Your task to perform on an android device: Clear all items from cart on newegg.com. Add logitech g pro to the cart on newegg.com, then select checkout. Image 0: 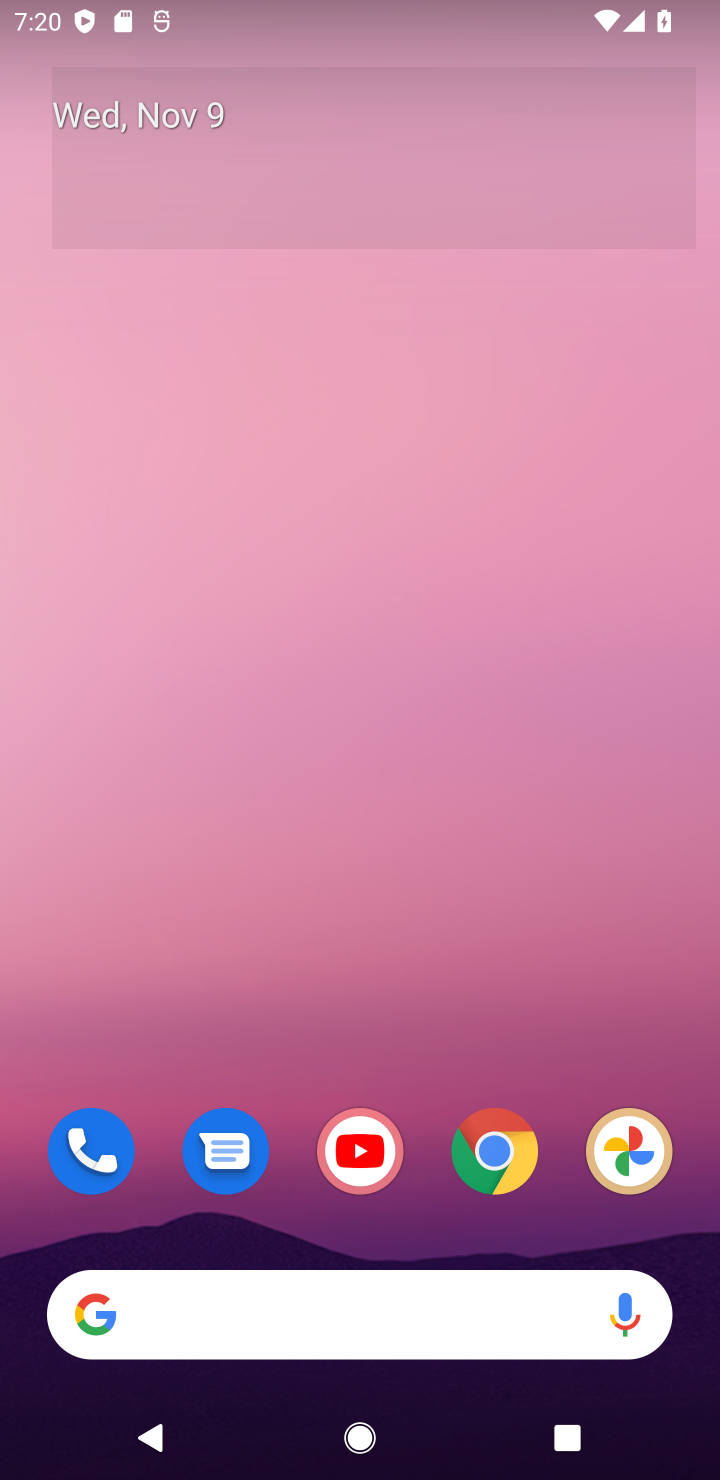
Step 0: drag from (411, 1125) to (605, 114)
Your task to perform on an android device: Clear all items from cart on newegg.com. Add logitech g pro to the cart on newegg.com, then select checkout. Image 1: 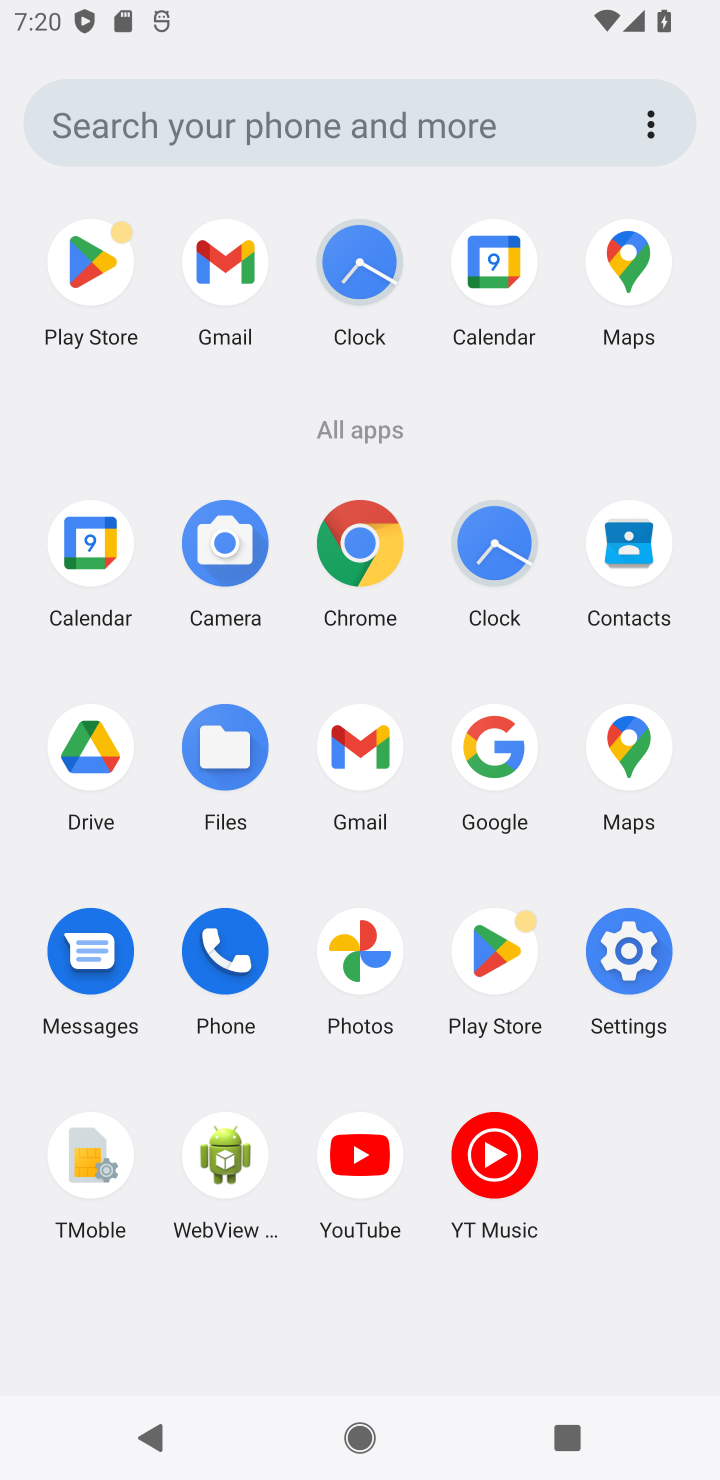
Step 1: click (365, 573)
Your task to perform on an android device: Clear all items from cart on newegg.com. Add logitech g pro to the cart on newegg.com, then select checkout. Image 2: 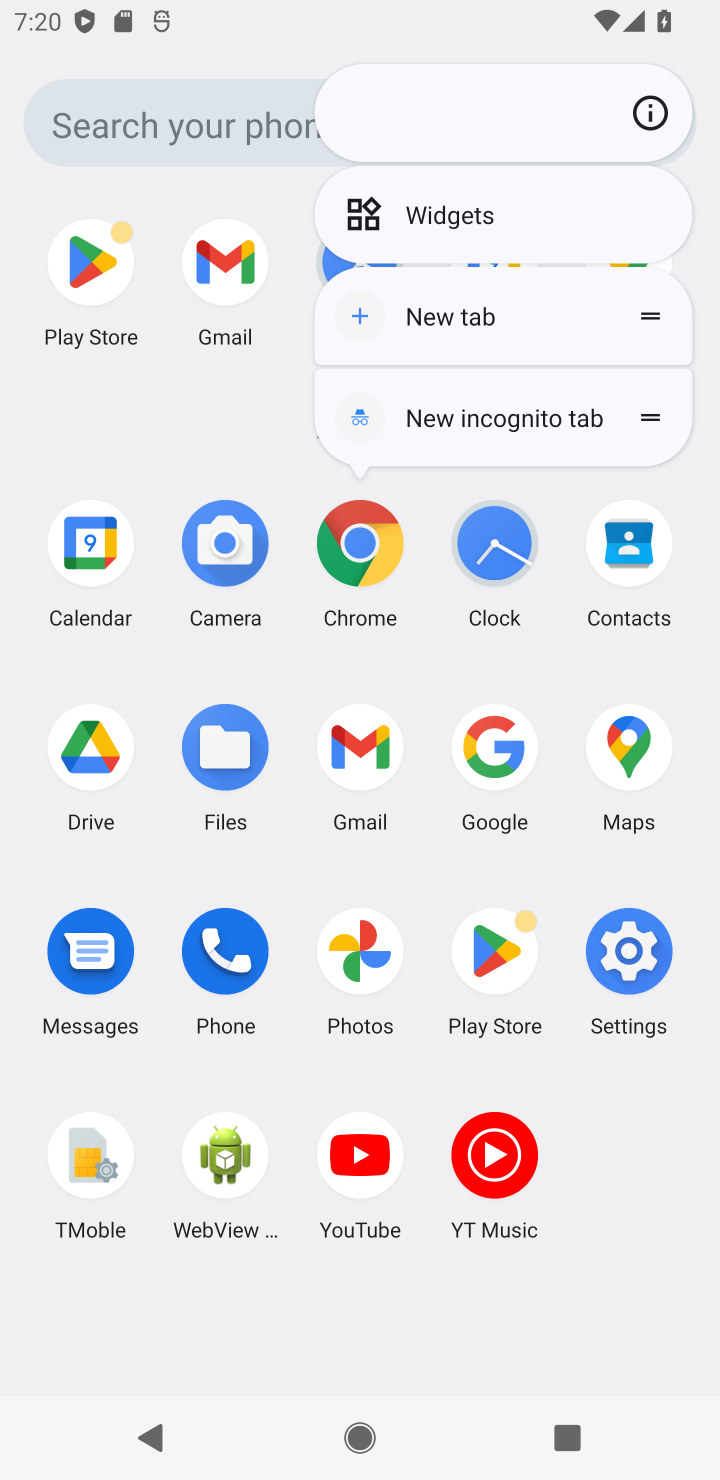
Step 2: click (366, 558)
Your task to perform on an android device: Clear all items from cart on newegg.com. Add logitech g pro to the cart on newegg.com, then select checkout. Image 3: 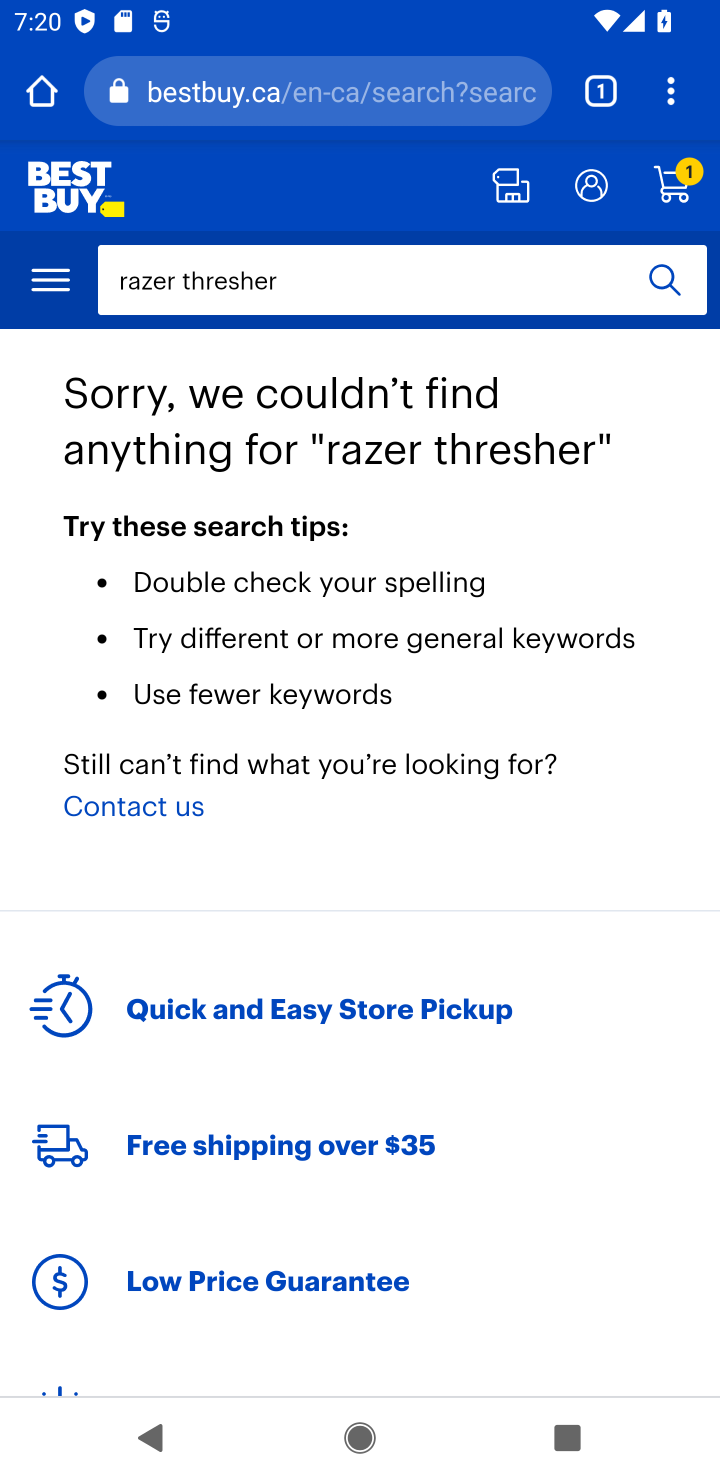
Step 3: click (328, 97)
Your task to perform on an android device: Clear all items from cart on newegg.com. Add logitech g pro to the cart on newegg.com, then select checkout. Image 4: 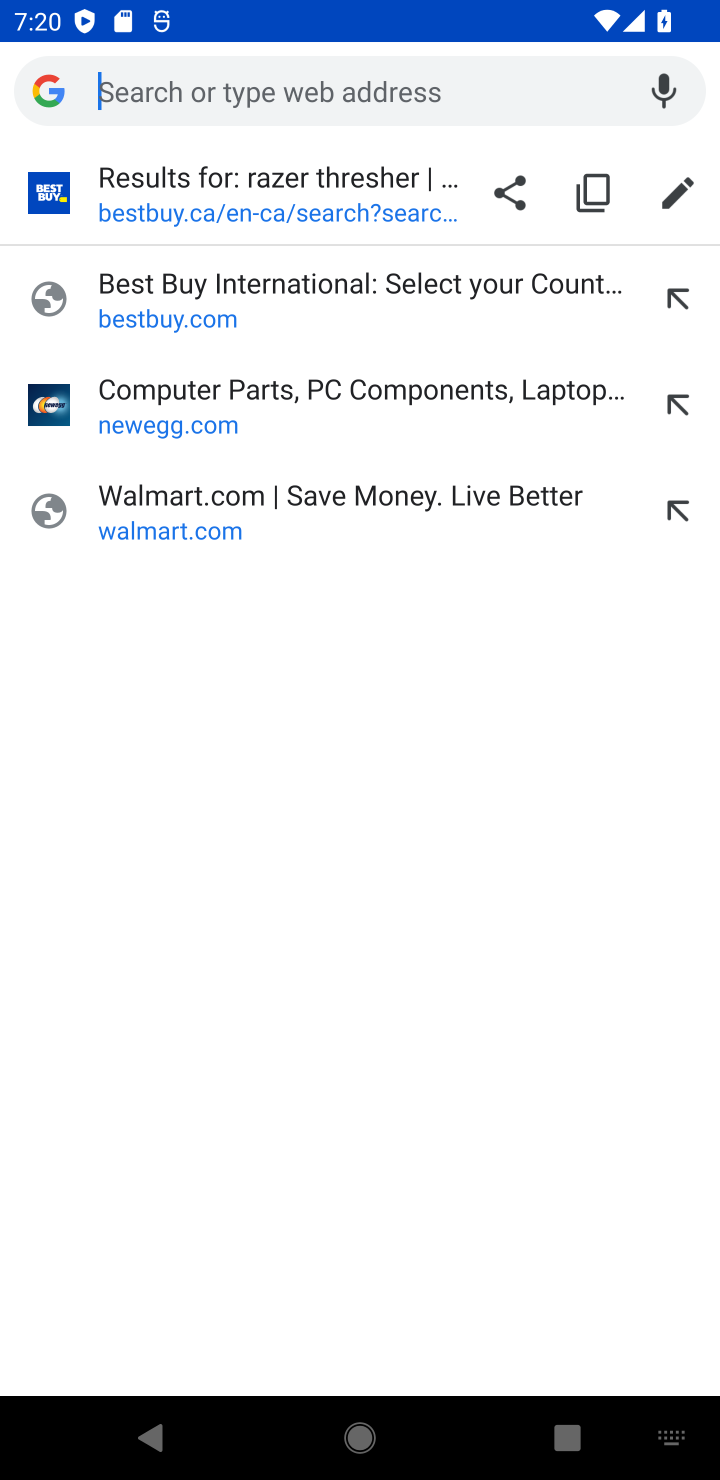
Step 4: type "newegg.com"
Your task to perform on an android device: Clear all items from cart on newegg.com. Add logitech g pro to the cart on newegg.com, then select checkout. Image 5: 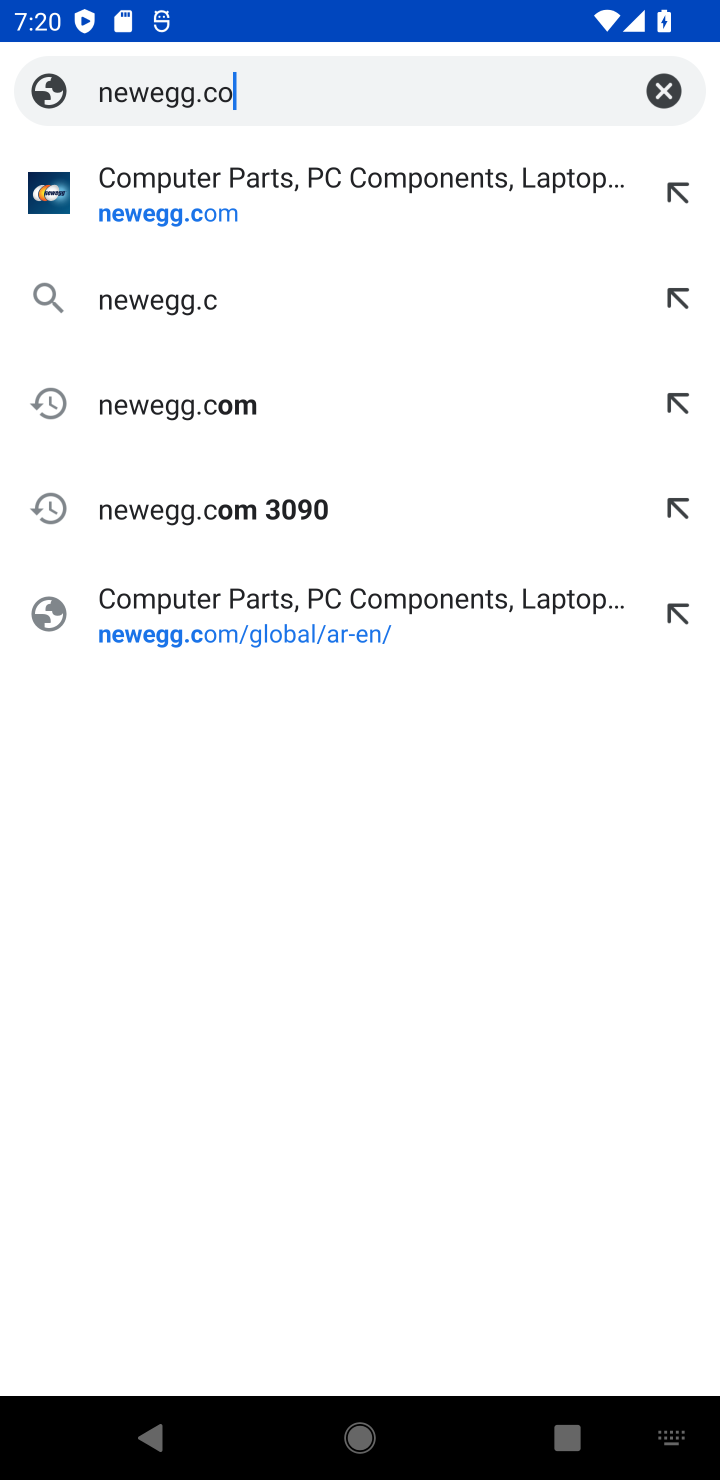
Step 5: press enter
Your task to perform on an android device: Clear all items from cart on newegg.com. Add logitech g pro to the cart on newegg.com, then select checkout. Image 6: 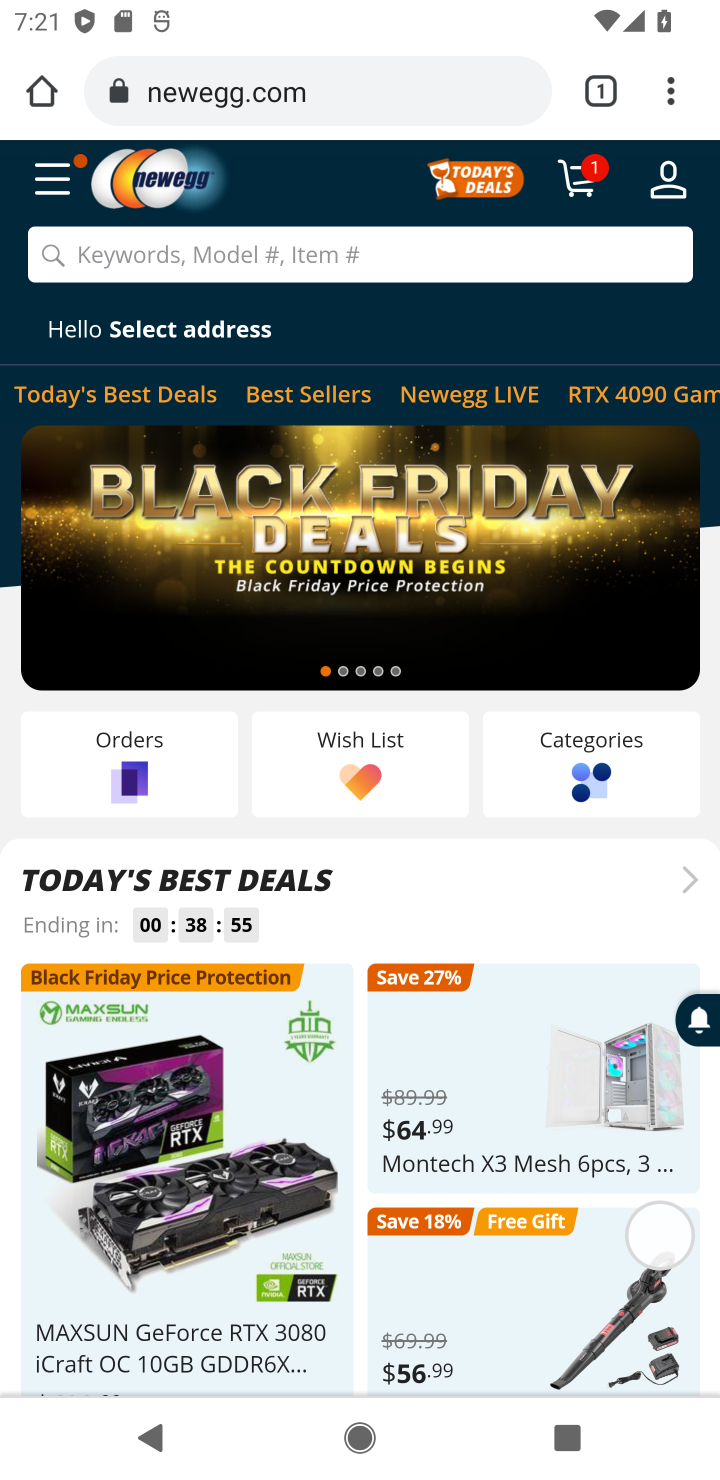
Step 6: click (571, 193)
Your task to perform on an android device: Clear all items from cart on newegg.com. Add logitech g pro to the cart on newegg.com, then select checkout. Image 7: 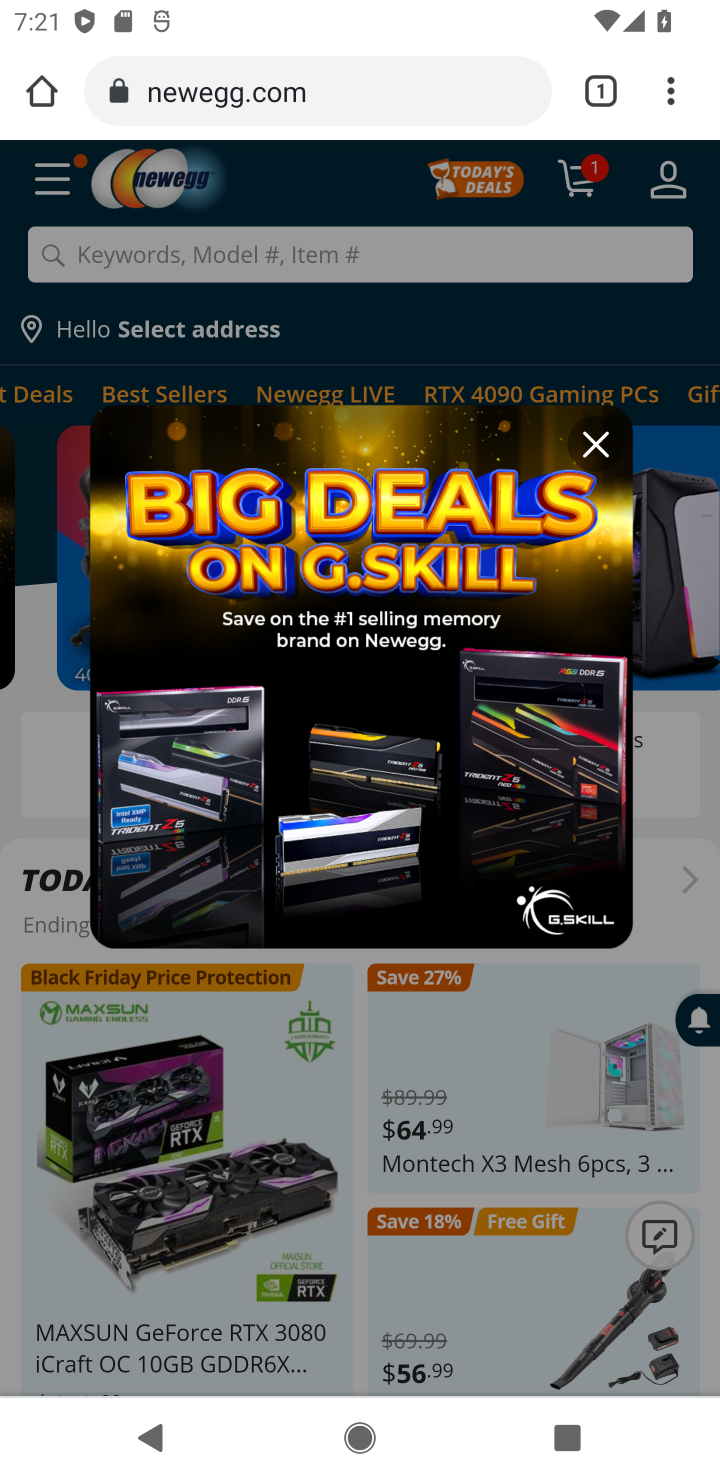
Step 7: click (583, 190)
Your task to perform on an android device: Clear all items from cart on newegg.com. Add logitech g pro to the cart on newegg.com, then select checkout. Image 8: 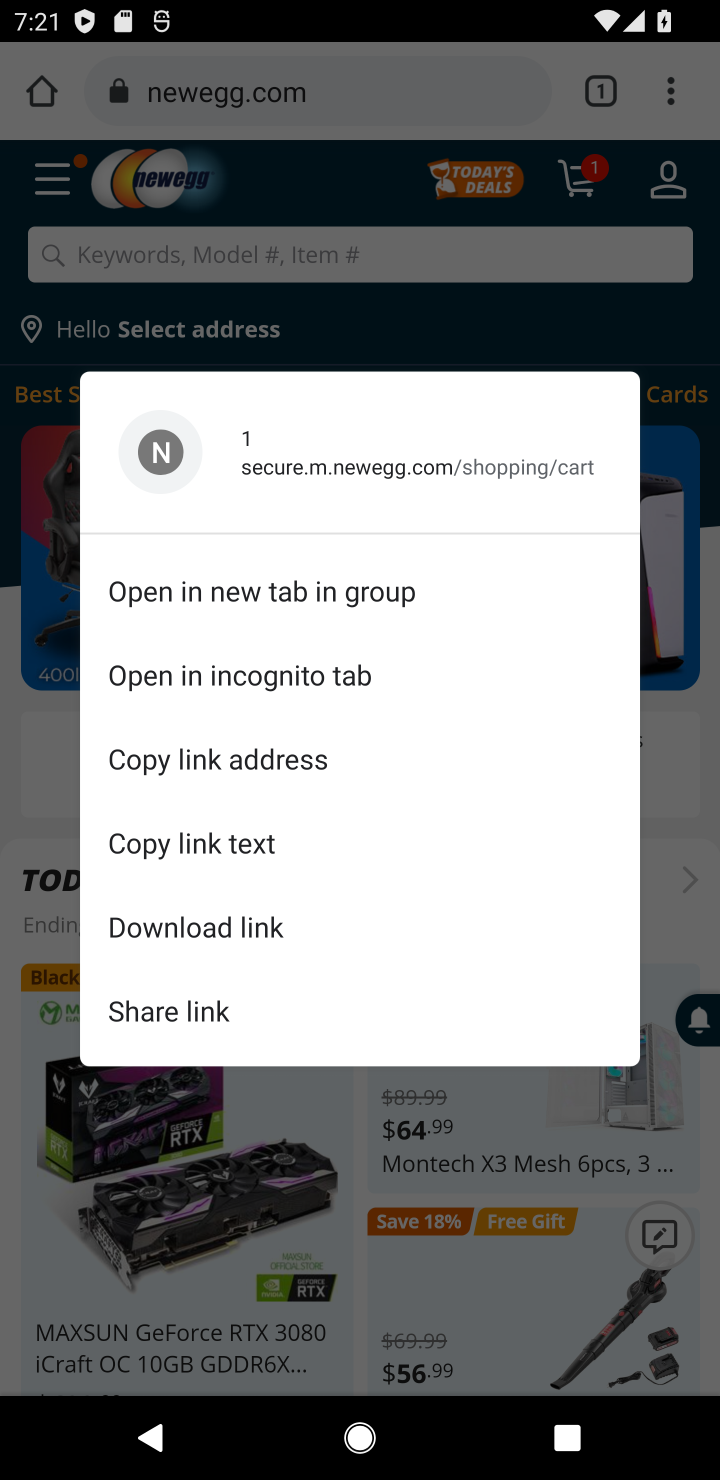
Step 8: click (585, 176)
Your task to perform on an android device: Clear all items from cart on newegg.com. Add logitech g pro to the cart on newegg.com, then select checkout. Image 9: 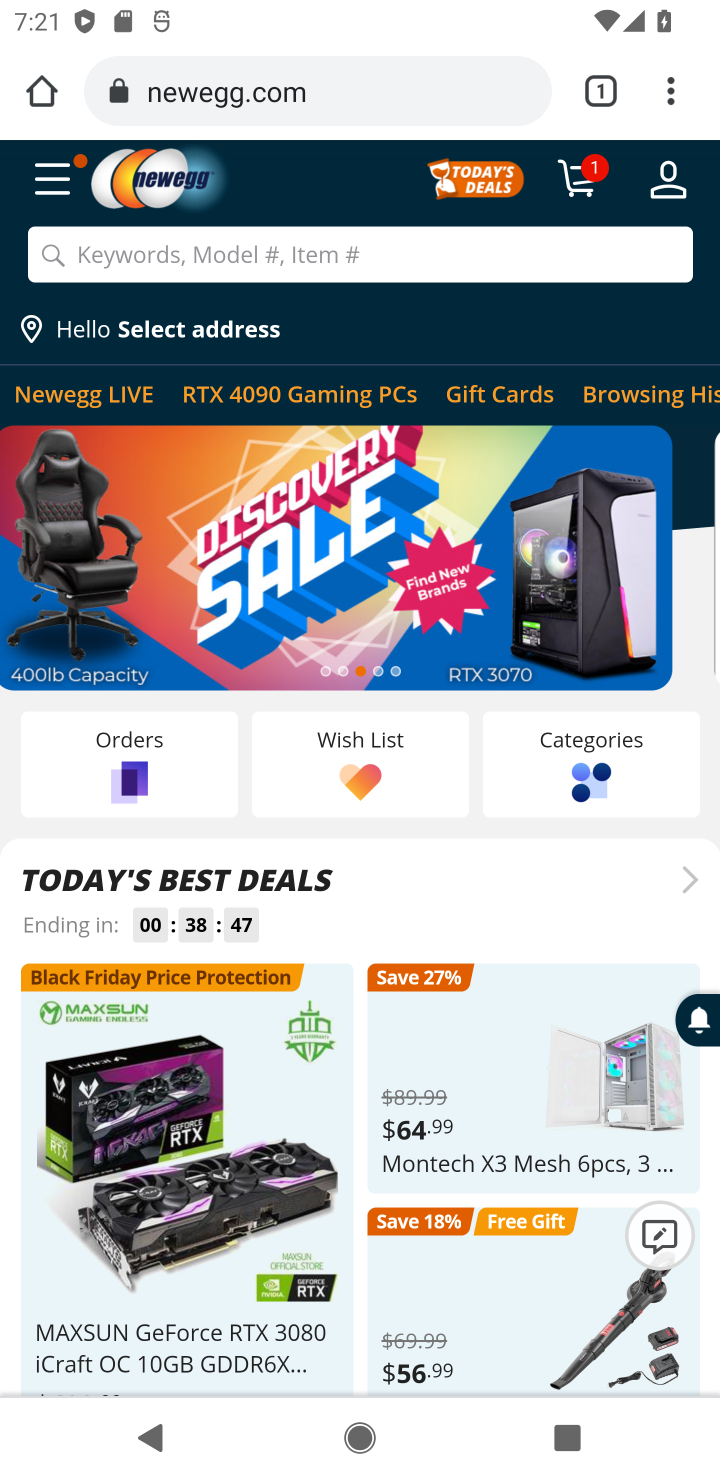
Step 9: click (588, 183)
Your task to perform on an android device: Clear all items from cart on newegg.com. Add logitech g pro to the cart on newegg.com, then select checkout. Image 10: 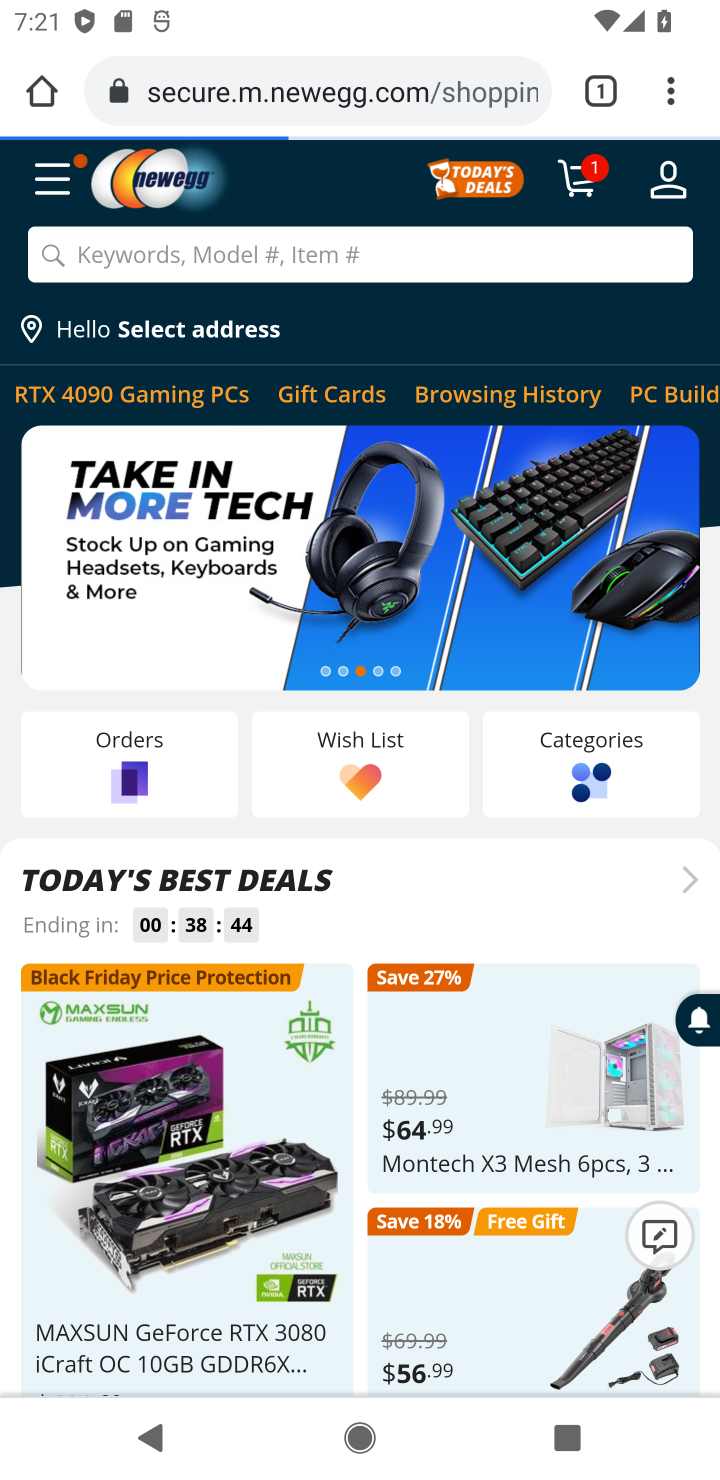
Step 10: click (590, 171)
Your task to perform on an android device: Clear all items from cart on newegg.com. Add logitech g pro to the cart on newegg.com, then select checkout. Image 11: 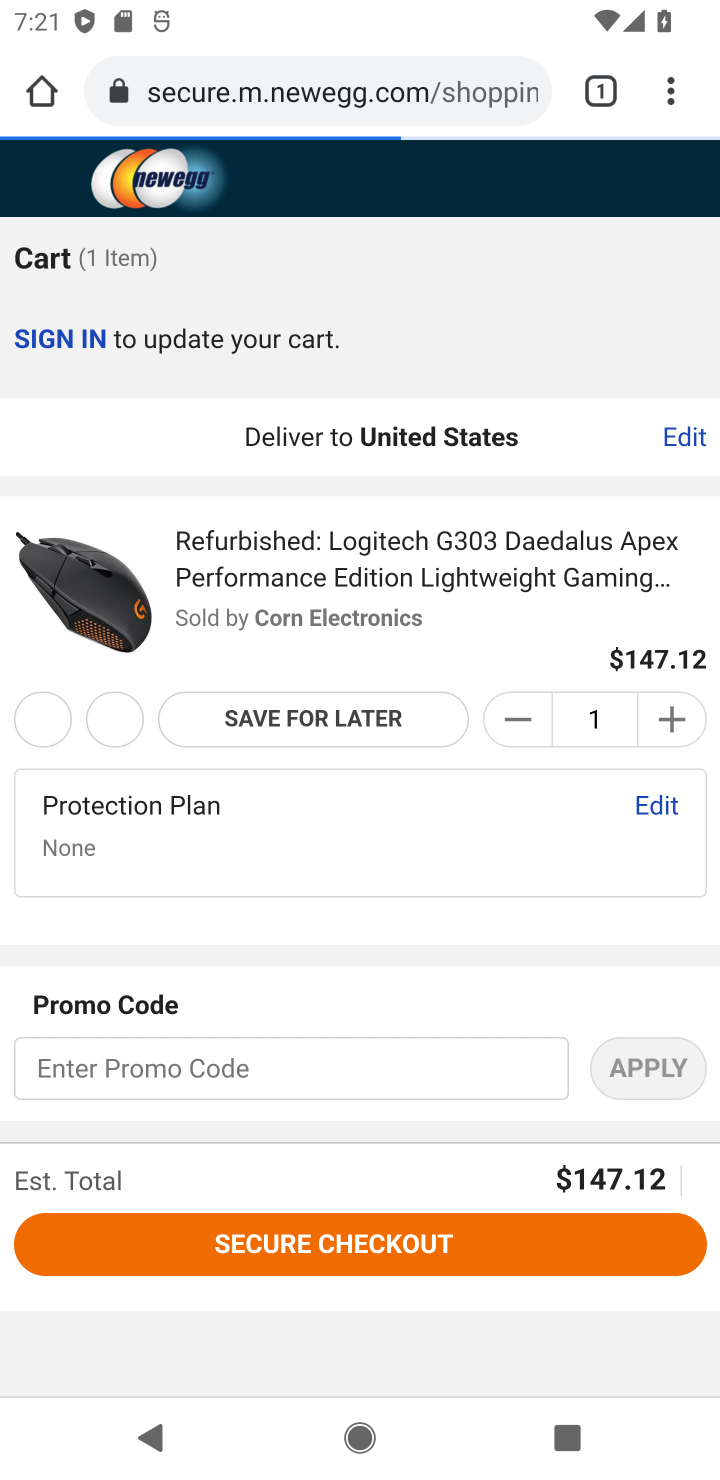
Step 11: click (590, 171)
Your task to perform on an android device: Clear all items from cart on newegg.com. Add logitech g pro to the cart on newegg.com, then select checkout. Image 12: 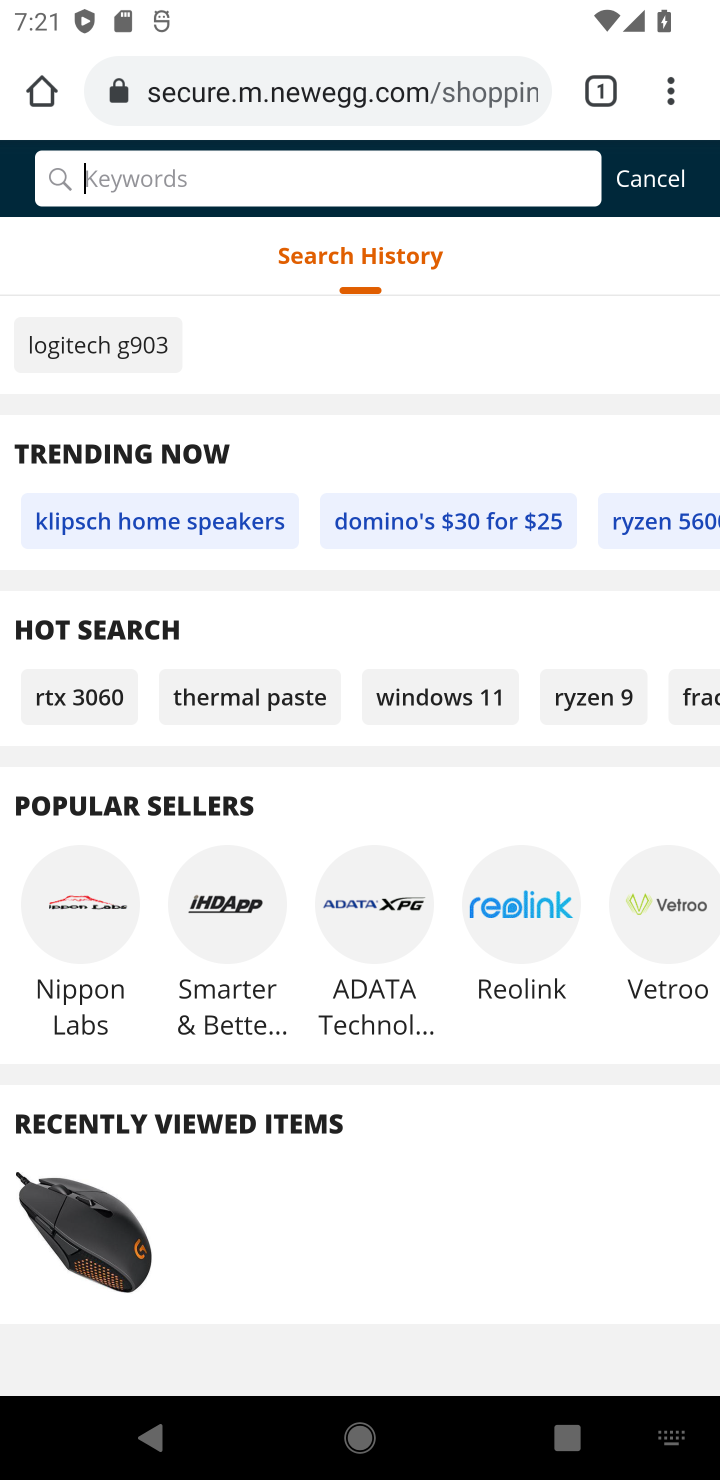
Step 12: press back button
Your task to perform on an android device: Clear all items from cart on newegg.com. Add logitech g pro to the cart on newegg.com, then select checkout. Image 13: 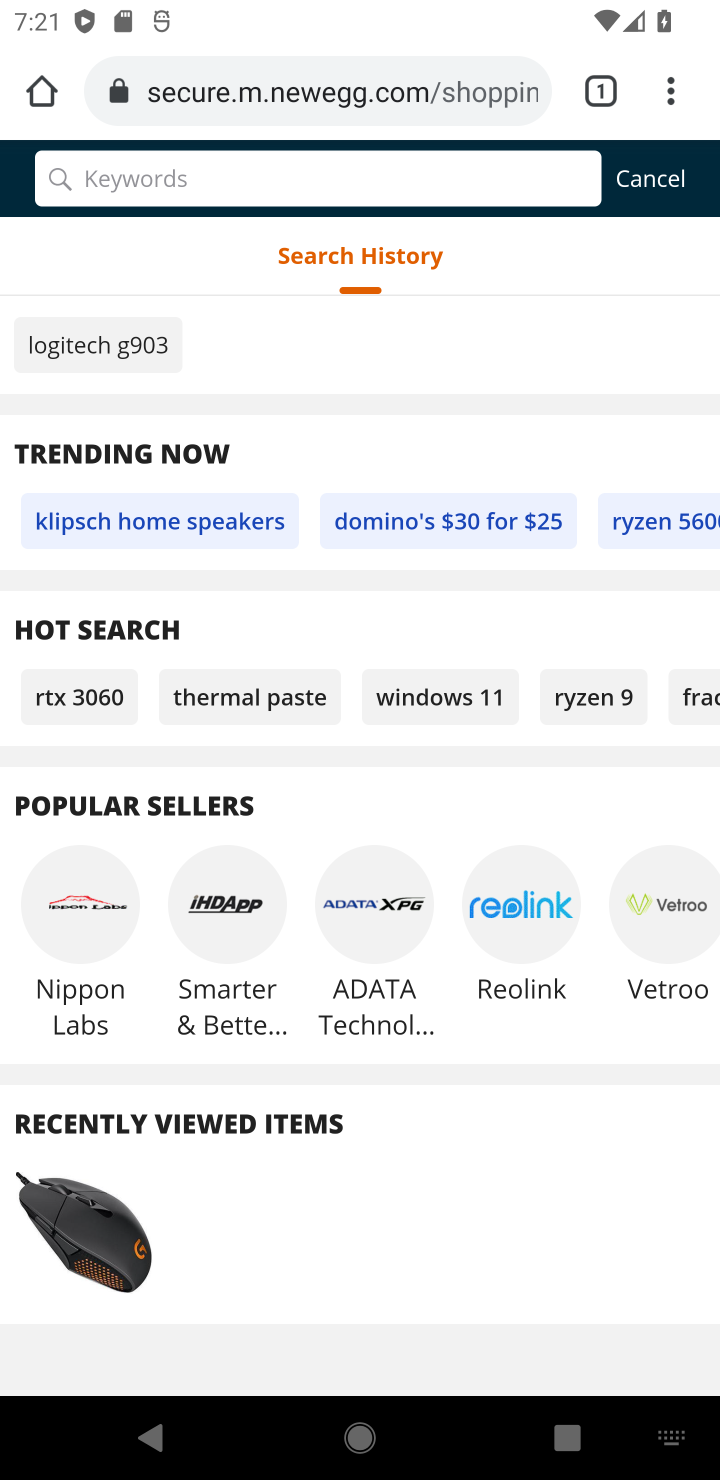
Step 13: press back button
Your task to perform on an android device: Clear all items from cart on newegg.com. Add logitech g pro to the cart on newegg.com, then select checkout. Image 14: 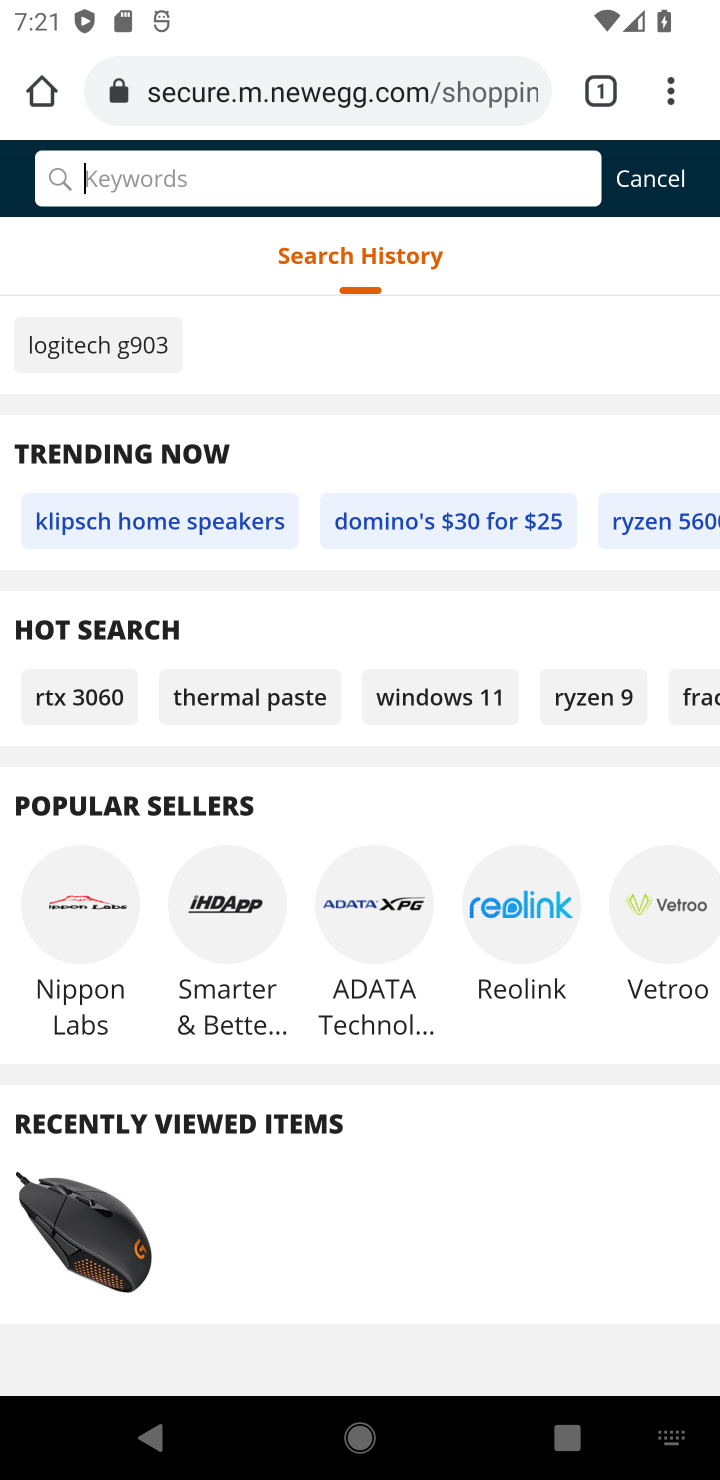
Step 14: press back button
Your task to perform on an android device: Clear all items from cart on newegg.com. Add logitech g pro to the cart on newegg.com, then select checkout. Image 15: 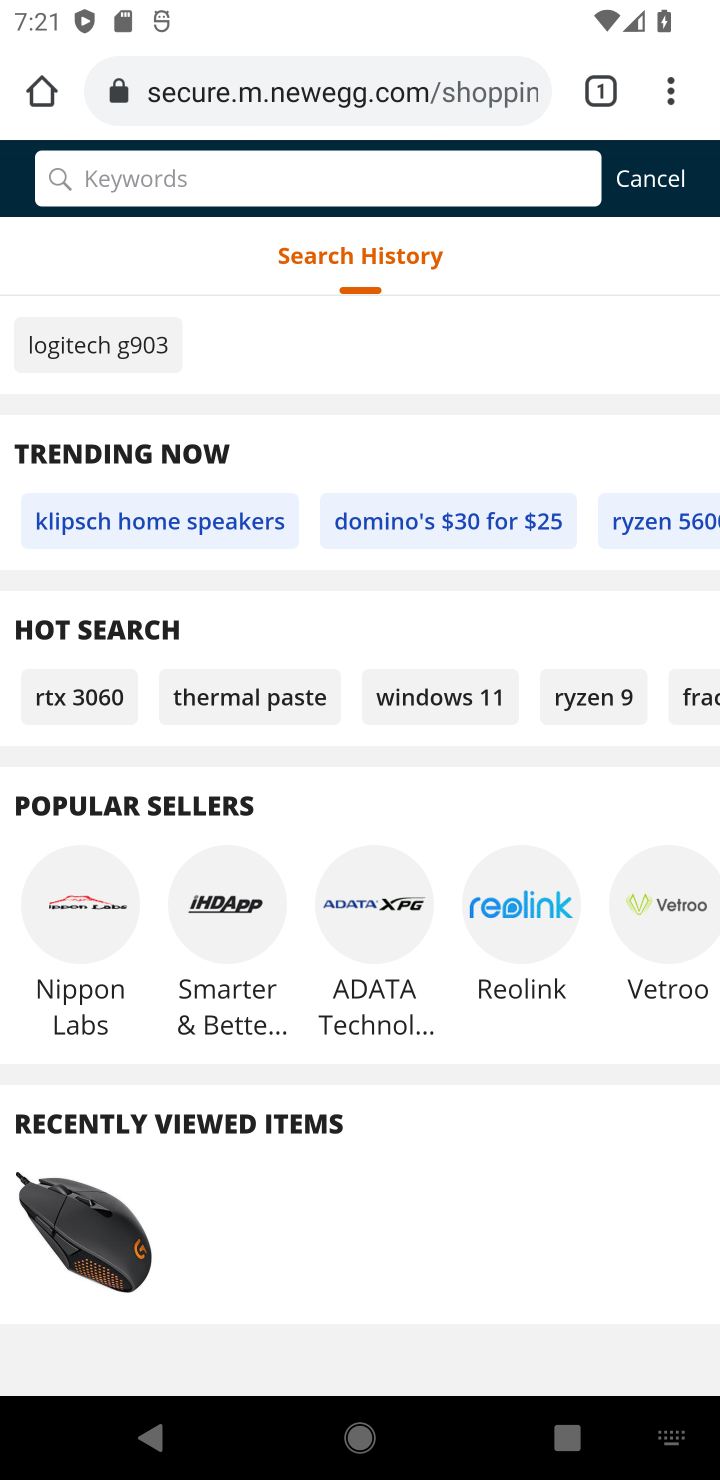
Step 15: press back button
Your task to perform on an android device: Clear all items from cart on newegg.com. Add logitech g pro to the cart on newegg.com, then select checkout. Image 16: 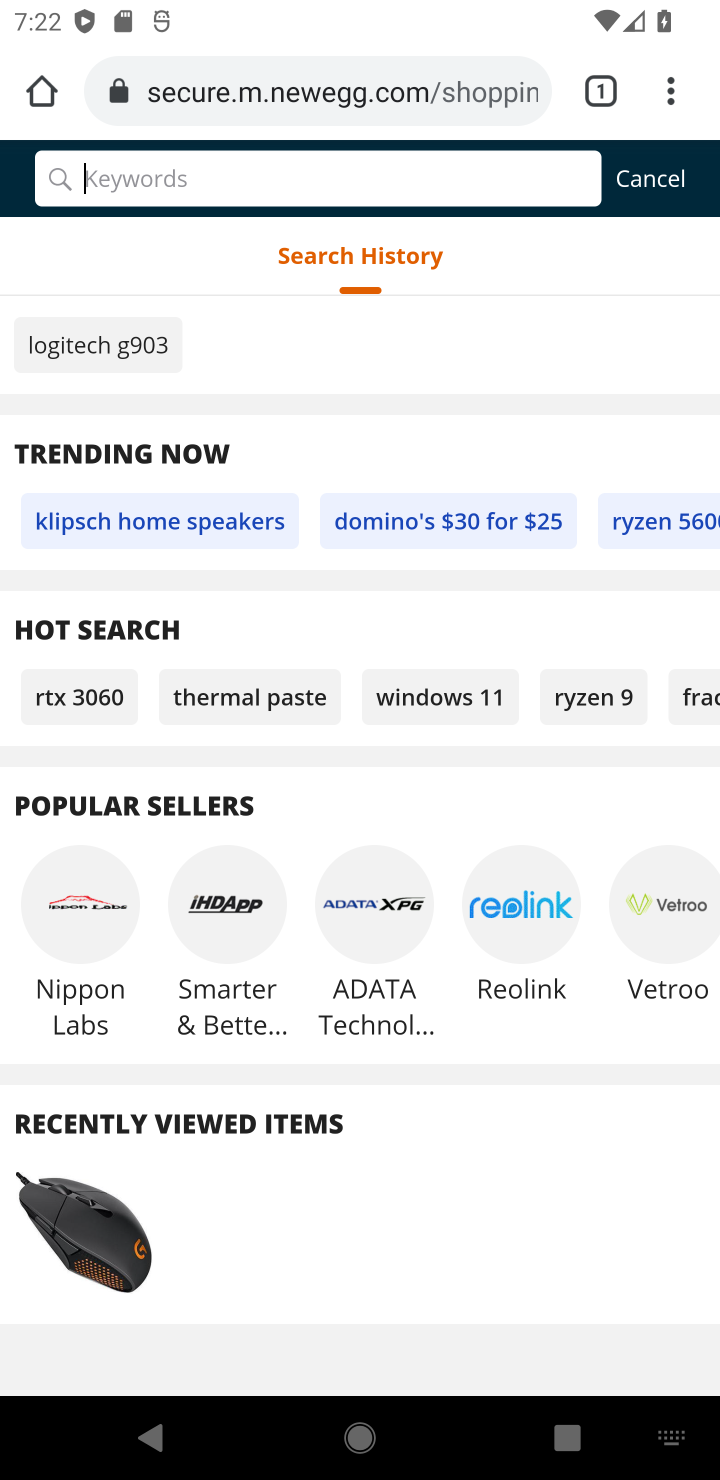
Step 16: press back button
Your task to perform on an android device: Clear all items from cart on newegg.com. Add logitech g pro to the cart on newegg.com, then select checkout. Image 17: 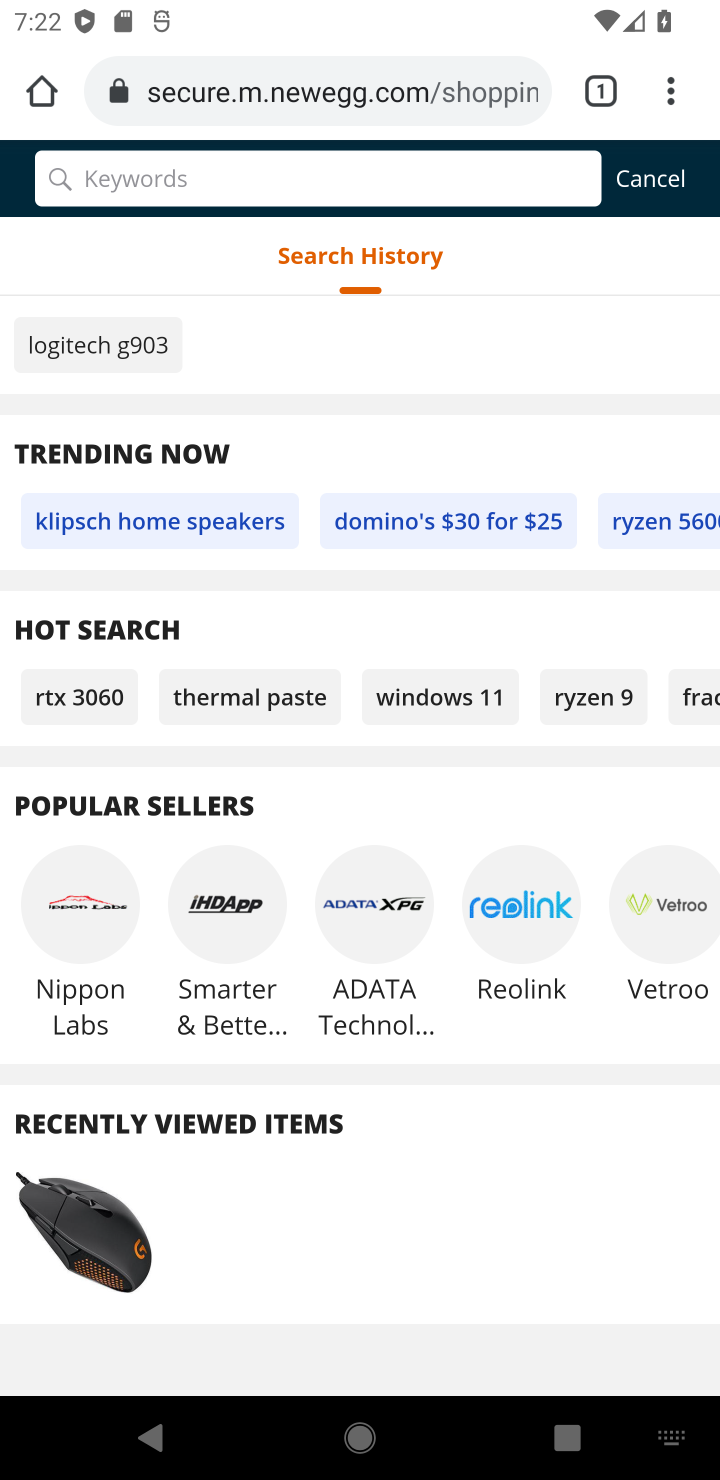
Step 17: press back button
Your task to perform on an android device: Clear all items from cart on newegg.com. Add logitech g pro to the cart on newegg.com, then select checkout. Image 18: 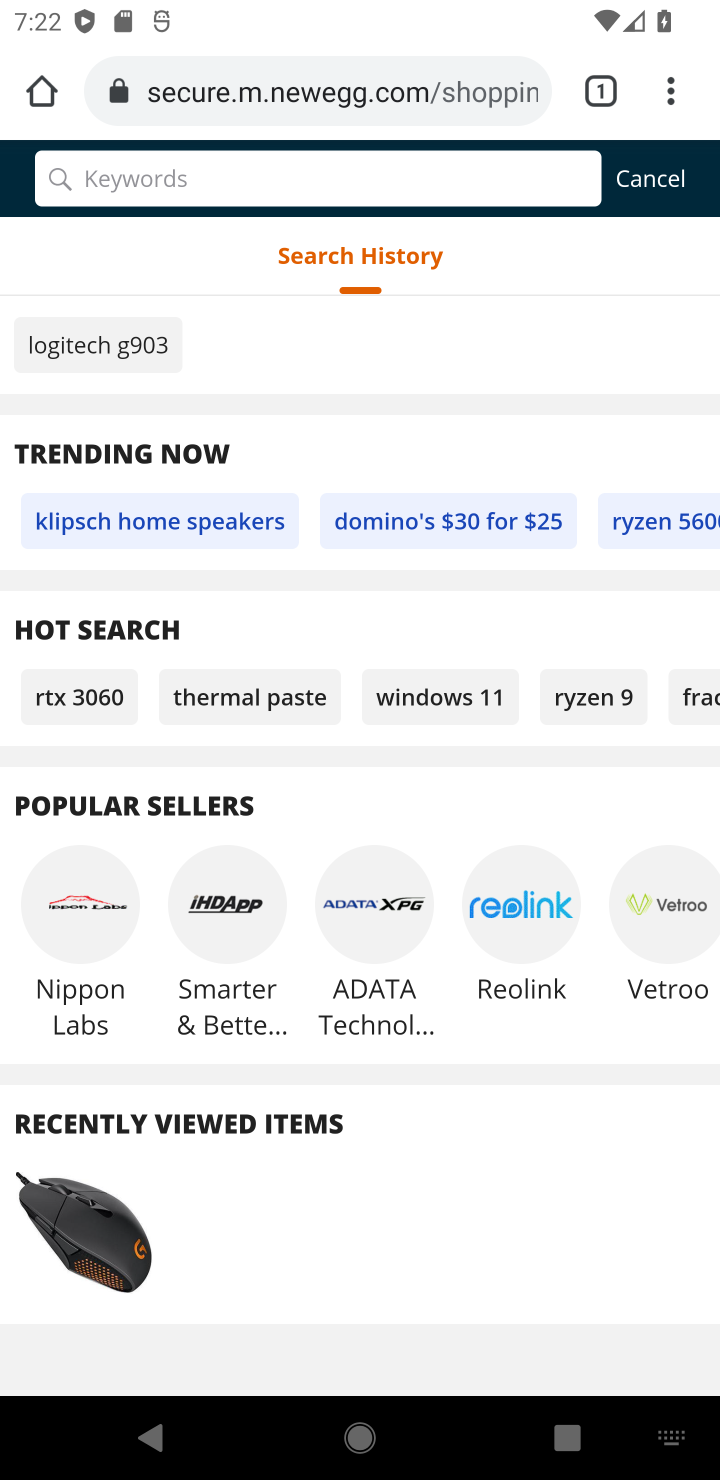
Step 18: press back button
Your task to perform on an android device: Clear all items from cart on newegg.com. Add logitech g pro to the cart on newegg.com, then select checkout. Image 19: 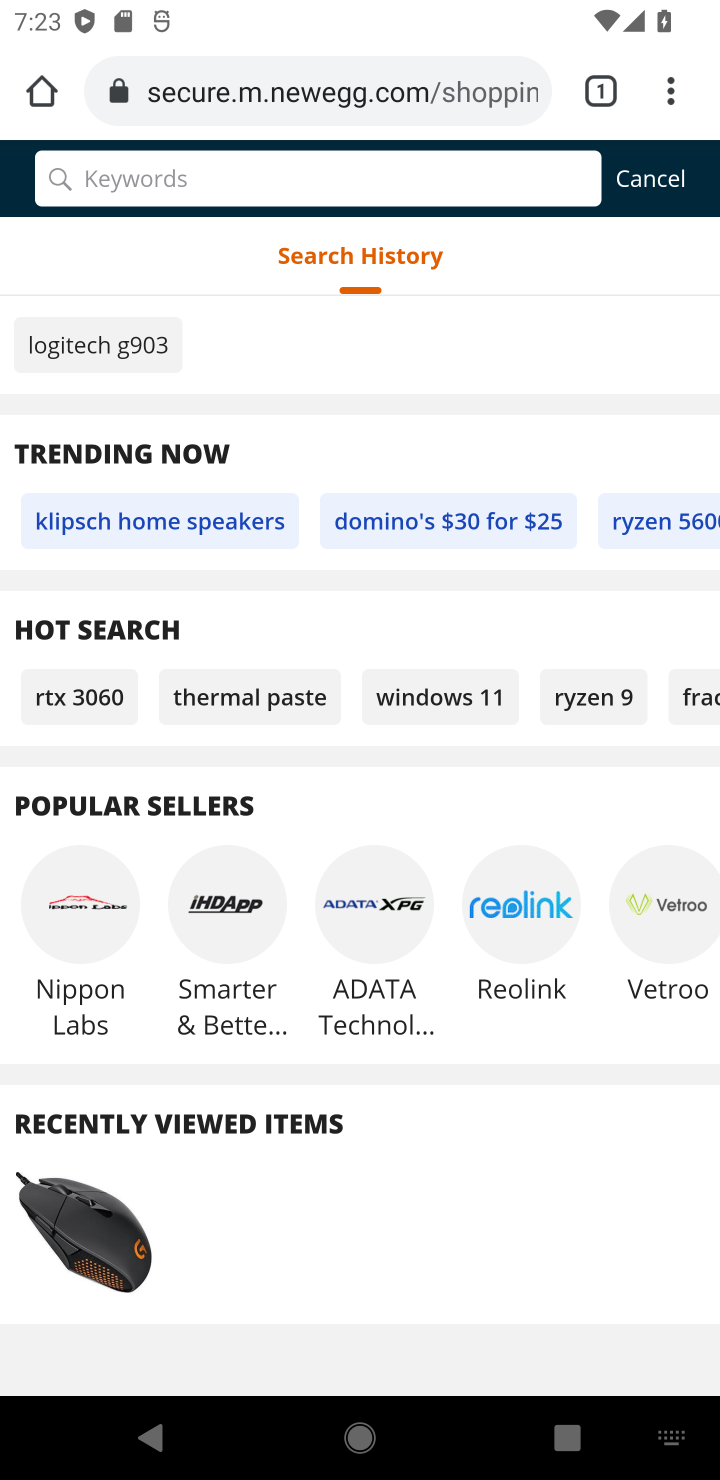
Step 19: press back button
Your task to perform on an android device: Clear all items from cart on newegg.com. Add logitech g pro to the cart on newegg.com, then select checkout. Image 20: 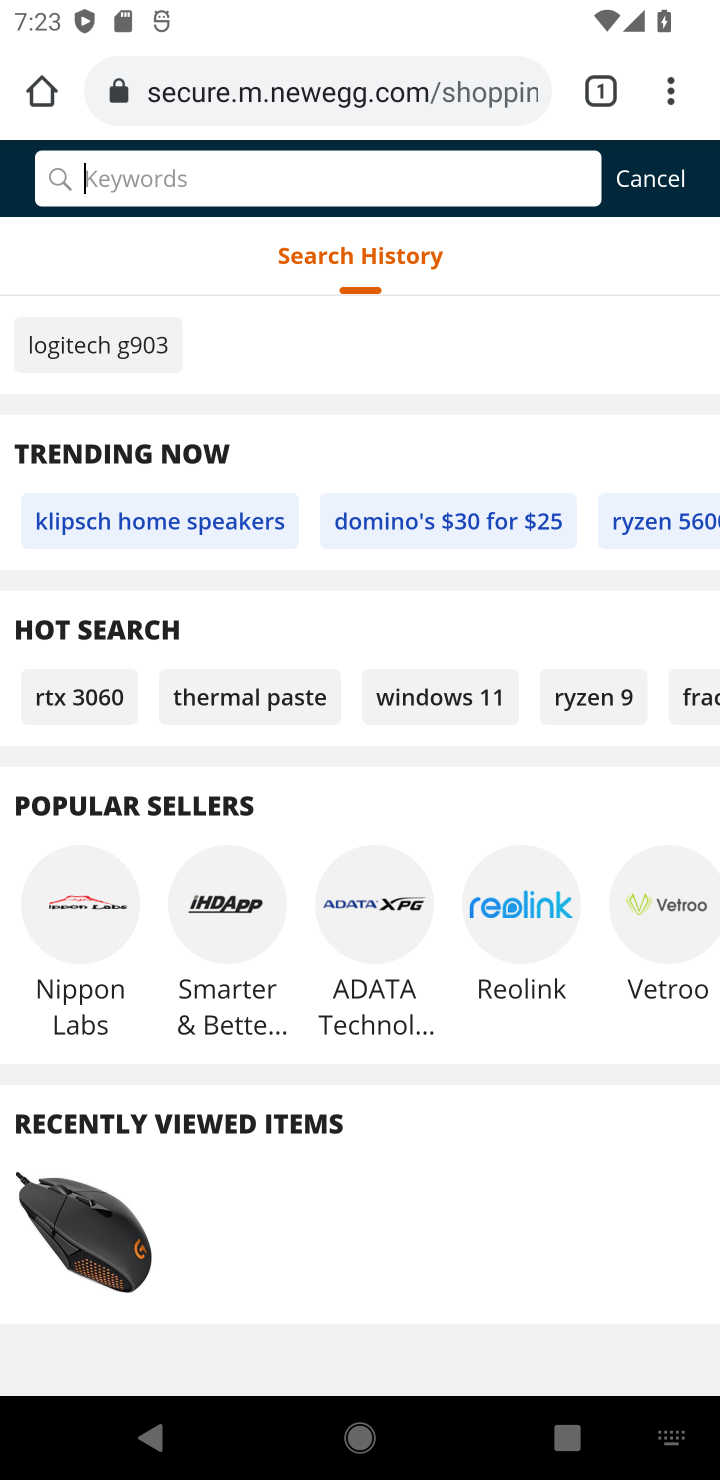
Step 20: type "logitech g pro"
Your task to perform on an android device: Clear all items from cart on newegg.com. Add logitech g pro to the cart on newegg.com, then select checkout. Image 21: 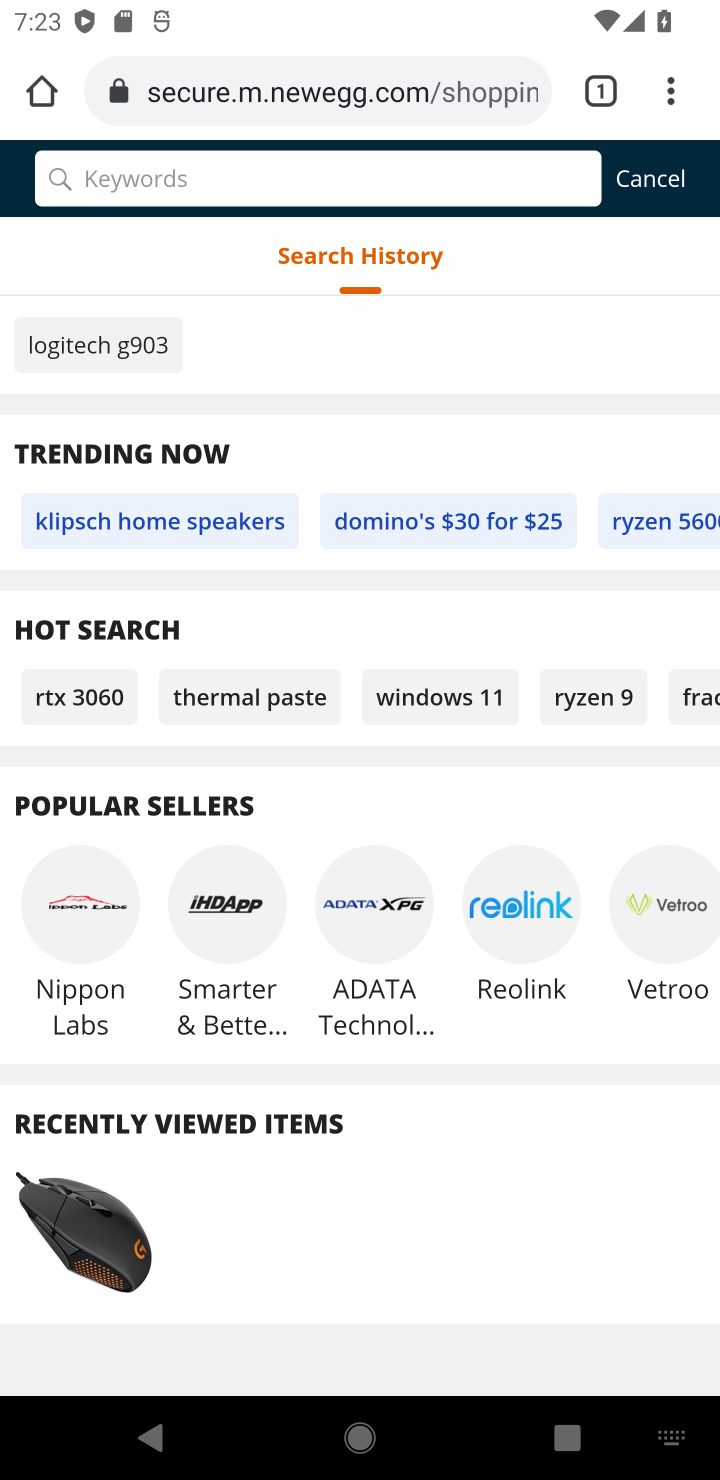
Step 21: press enter
Your task to perform on an android device: Clear all items from cart on newegg.com. Add logitech g pro to the cart on newegg.com, then select checkout. Image 22: 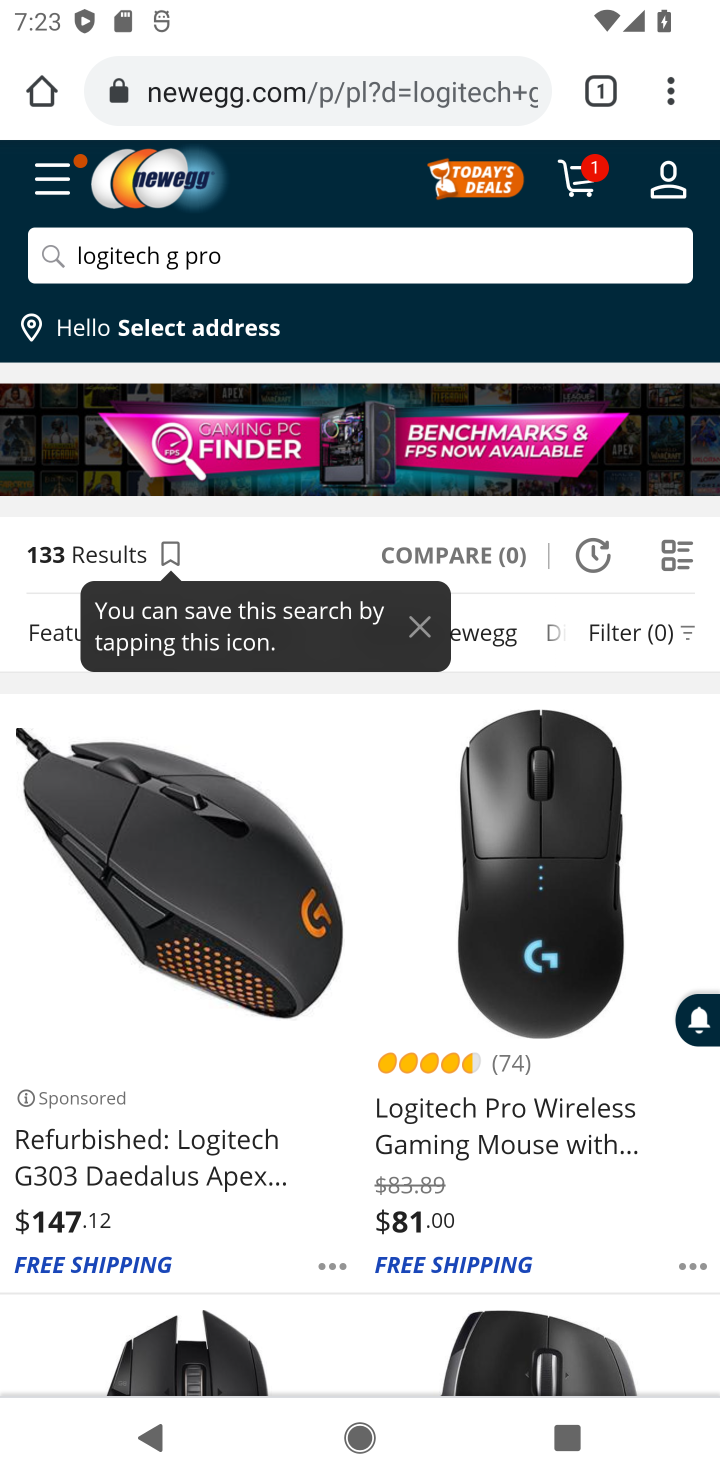
Step 22: click (209, 1138)
Your task to perform on an android device: Clear all items from cart on newegg.com. Add logitech g pro to the cart on newegg.com, then select checkout. Image 23: 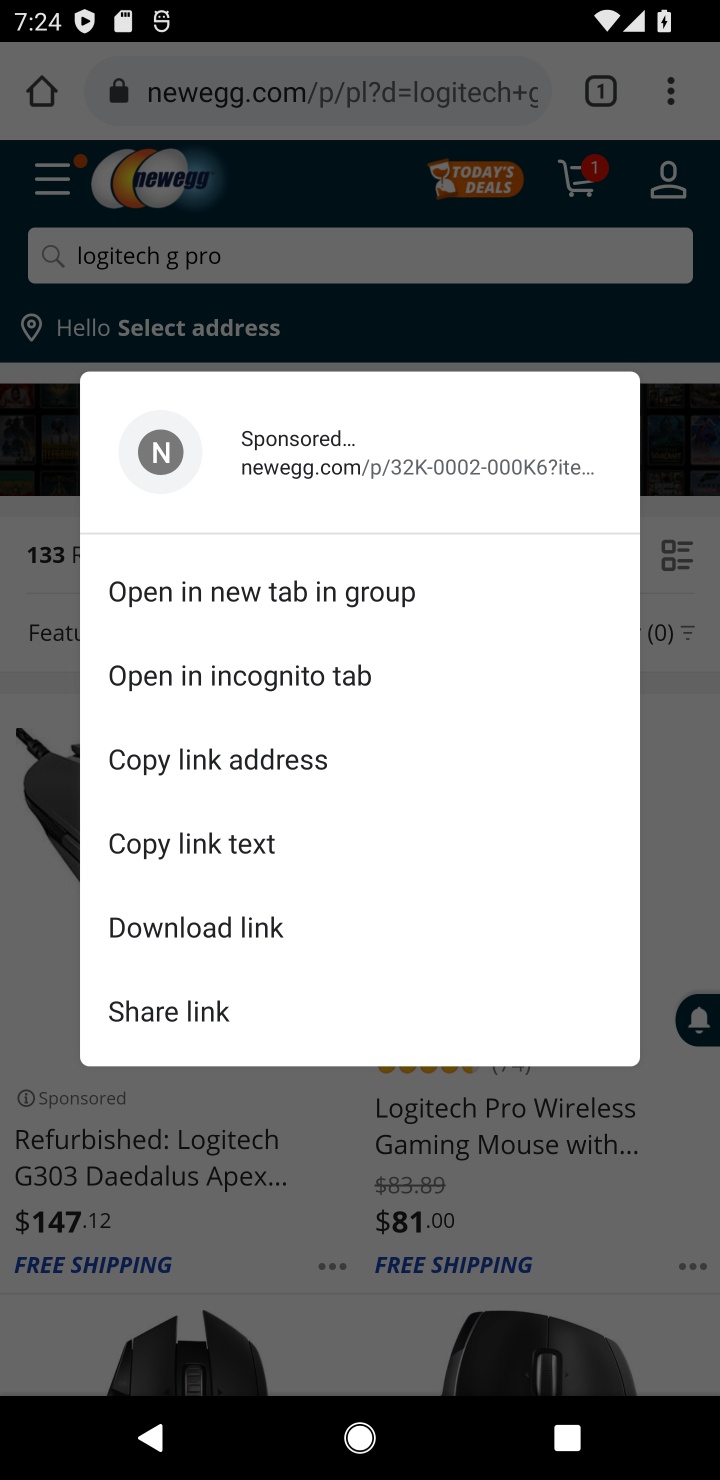
Step 23: click (209, 1136)
Your task to perform on an android device: Clear all items from cart on newegg.com. Add logitech g pro to the cart on newegg.com, then select checkout. Image 24: 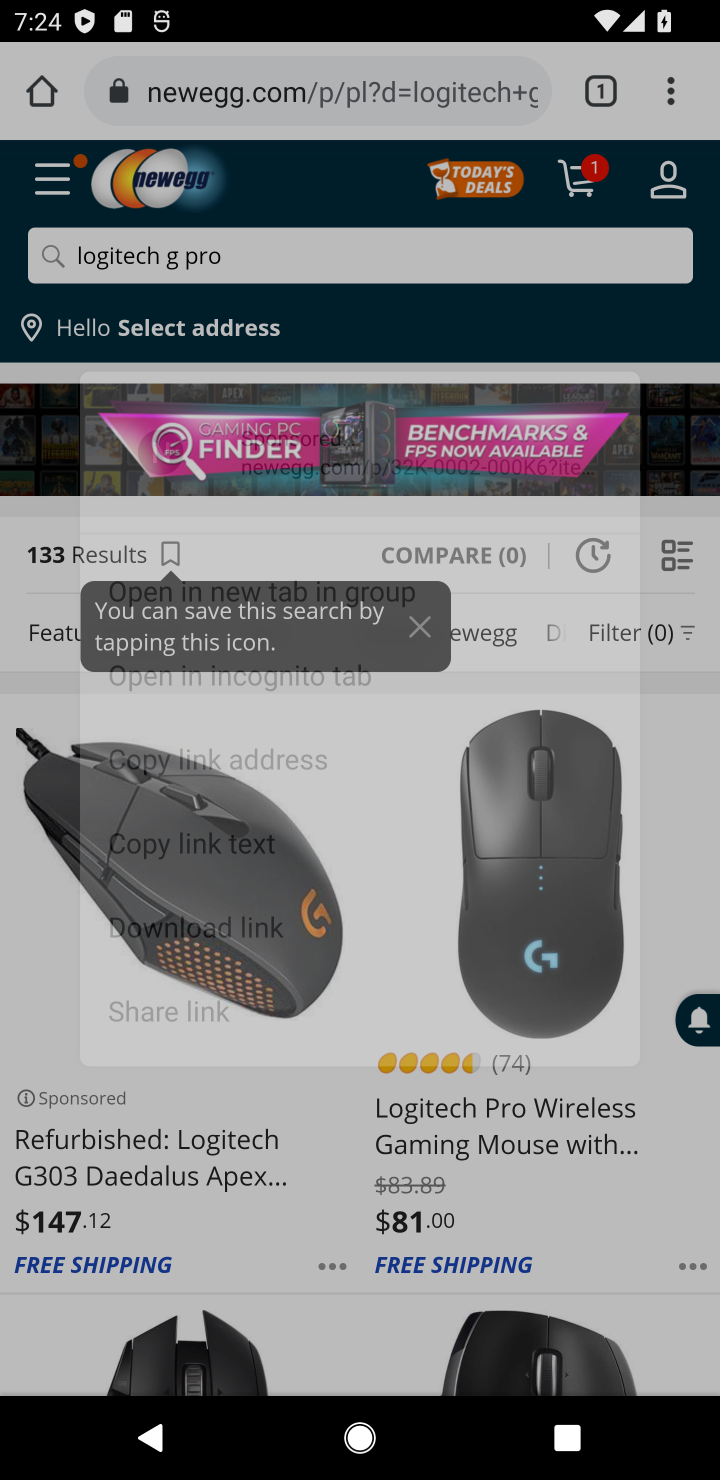
Step 24: click (209, 1136)
Your task to perform on an android device: Clear all items from cart on newegg.com. Add logitech g pro to the cart on newegg.com, then select checkout. Image 25: 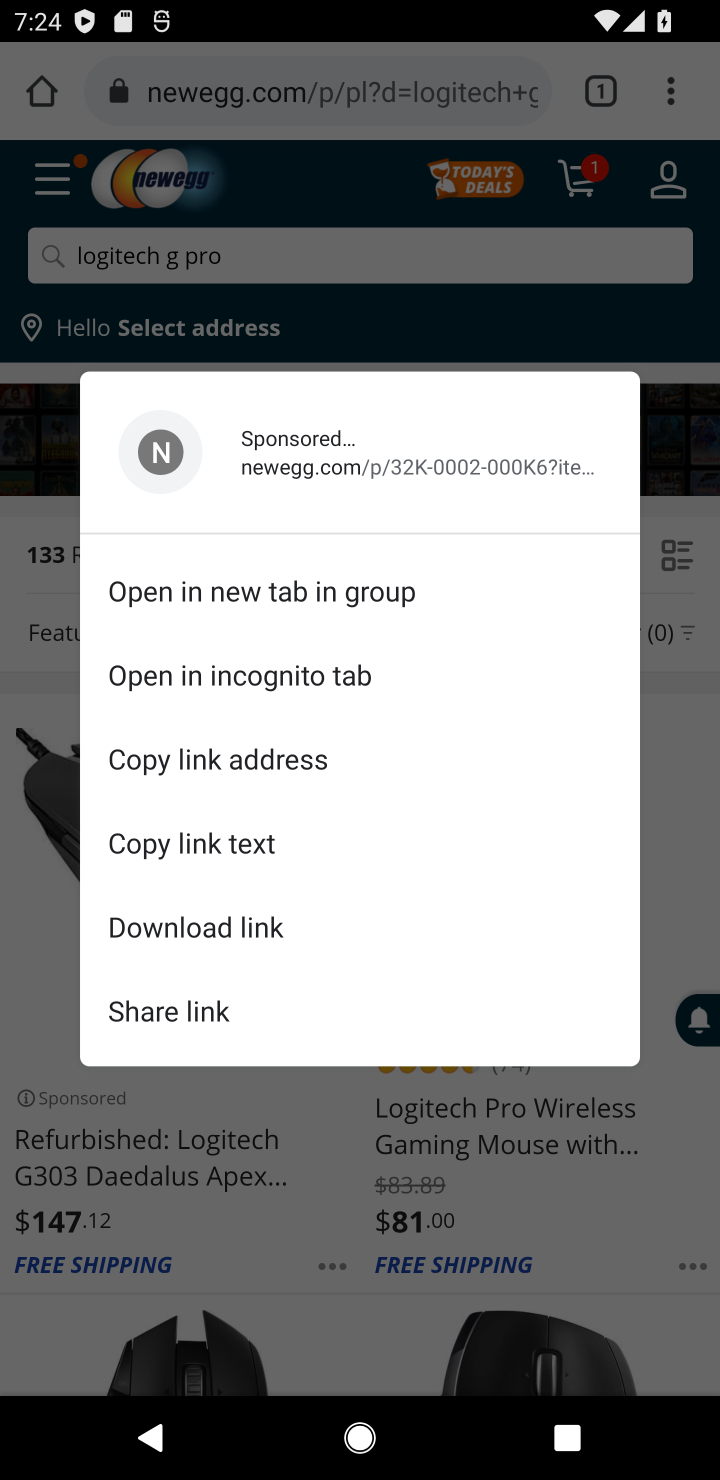
Step 25: click (209, 1136)
Your task to perform on an android device: Clear all items from cart on newegg.com. Add logitech g pro to the cart on newegg.com, then select checkout. Image 26: 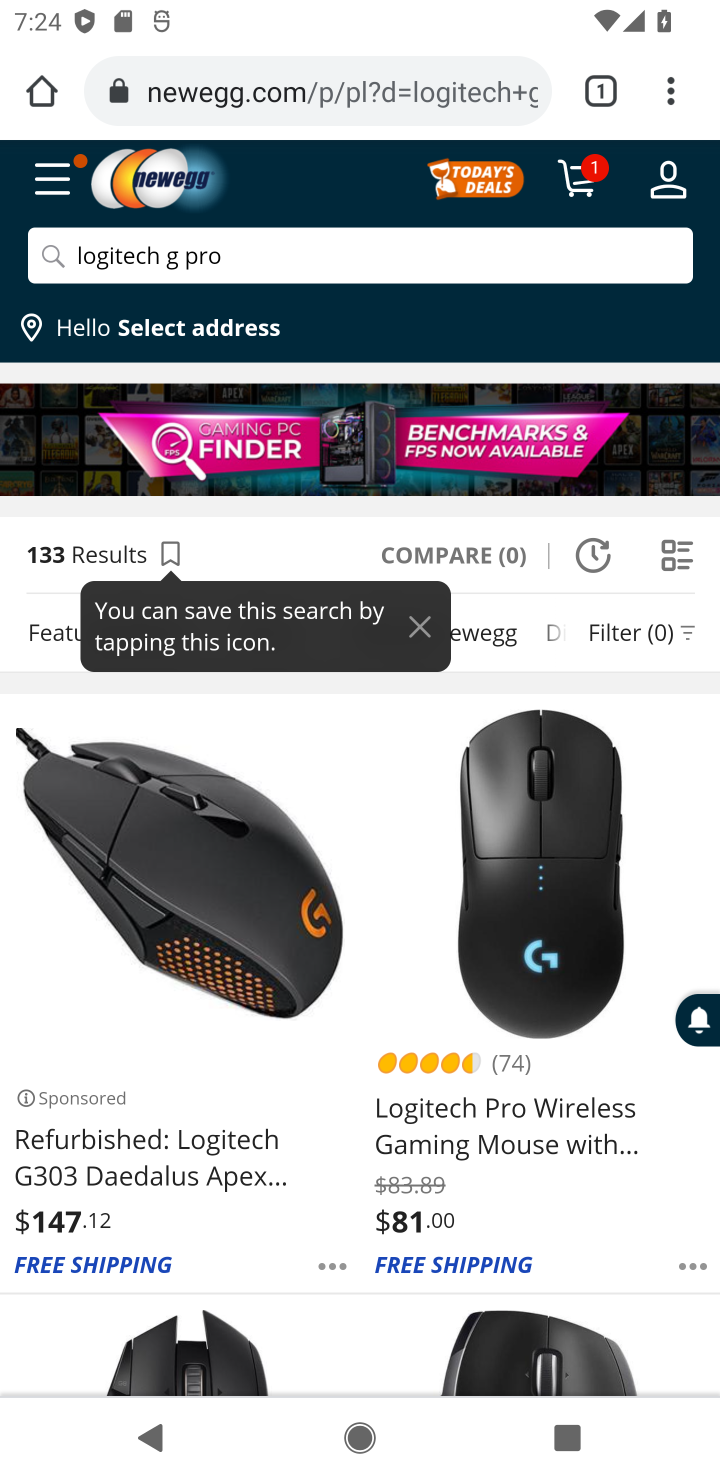
Step 26: click (209, 1136)
Your task to perform on an android device: Clear all items from cart on newegg.com. Add logitech g pro to the cart on newegg.com, then select checkout. Image 27: 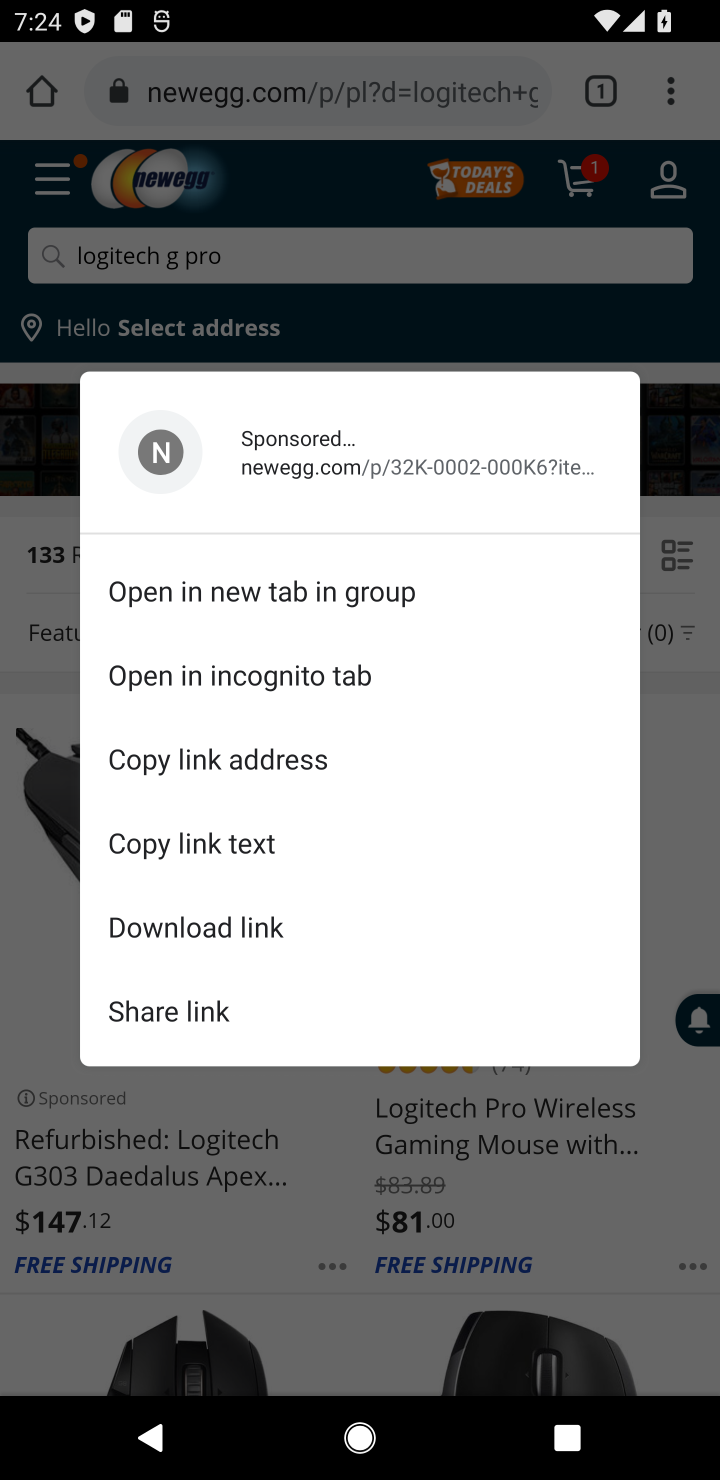
Step 27: click (209, 1136)
Your task to perform on an android device: Clear all items from cart on newegg.com. Add logitech g pro to the cart on newegg.com, then select checkout. Image 28: 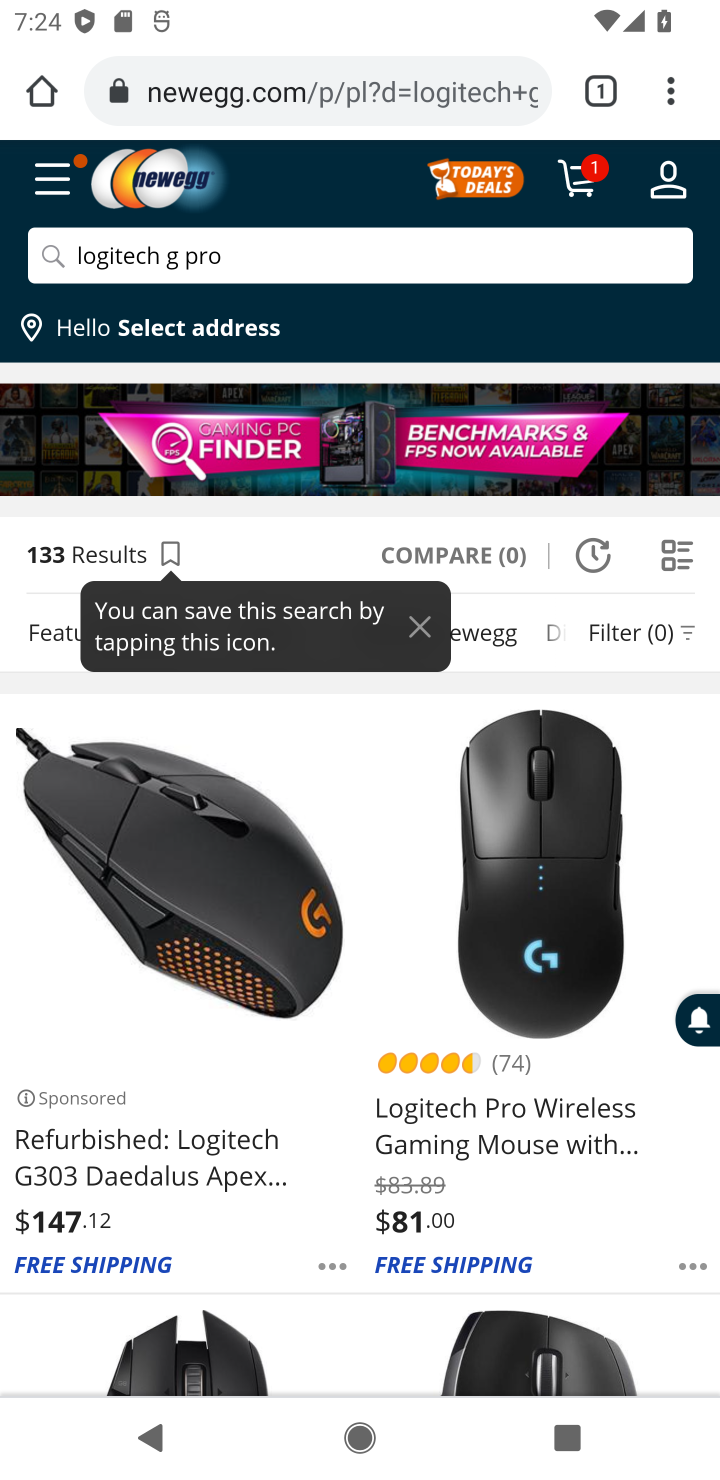
Step 28: task complete